Your task to perform on an android device: Go to Amazon Image 0: 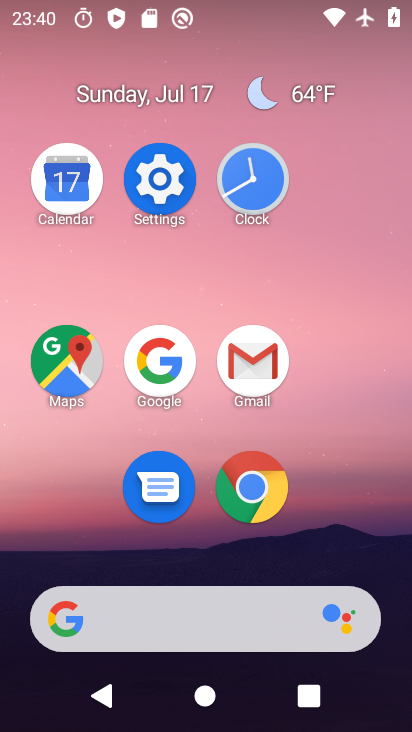
Step 0: click (270, 489)
Your task to perform on an android device: Go to Amazon Image 1: 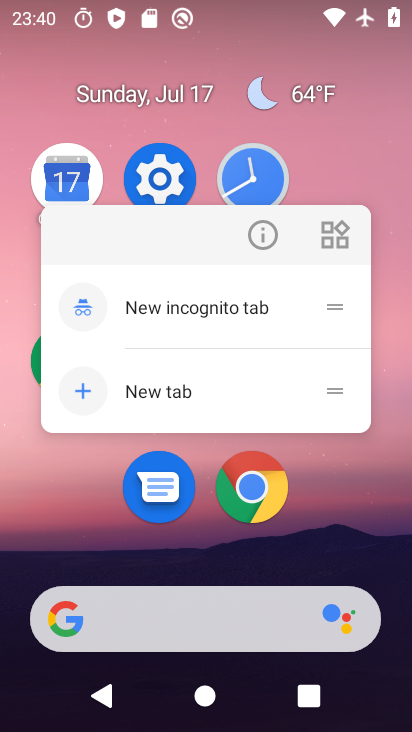
Step 1: click (266, 483)
Your task to perform on an android device: Go to Amazon Image 2: 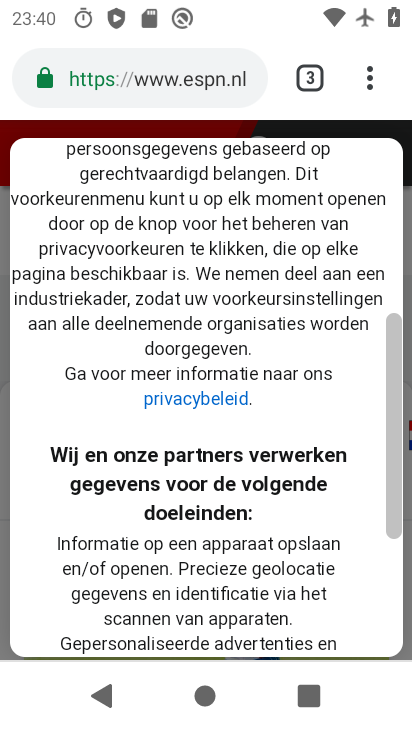
Step 2: click (312, 78)
Your task to perform on an android device: Go to Amazon Image 3: 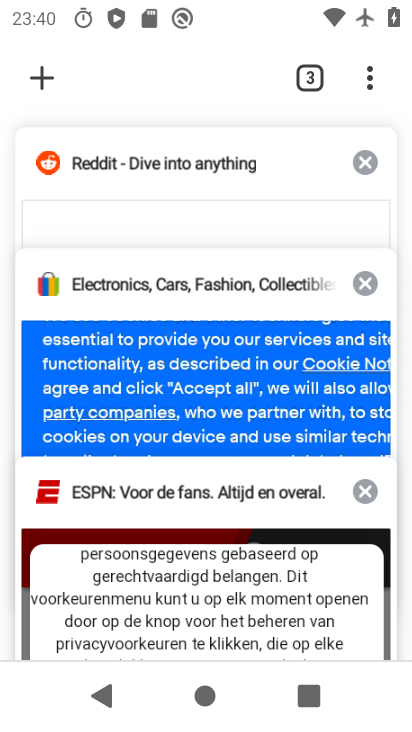
Step 3: click (48, 60)
Your task to perform on an android device: Go to Amazon Image 4: 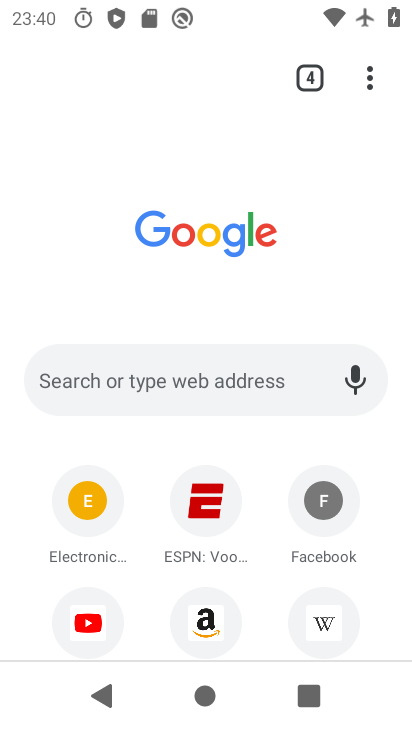
Step 4: click (210, 631)
Your task to perform on an android device: Go to Amazon Image 5: 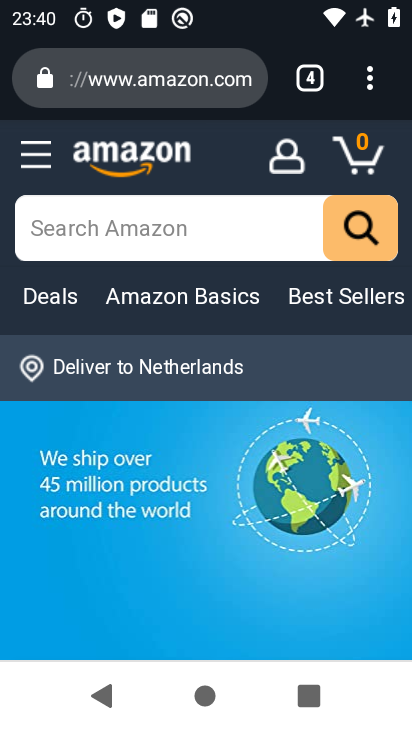
Step 5: task complete